Your task to perform on an android device: manage bookmarks in the chrome app Image 0: 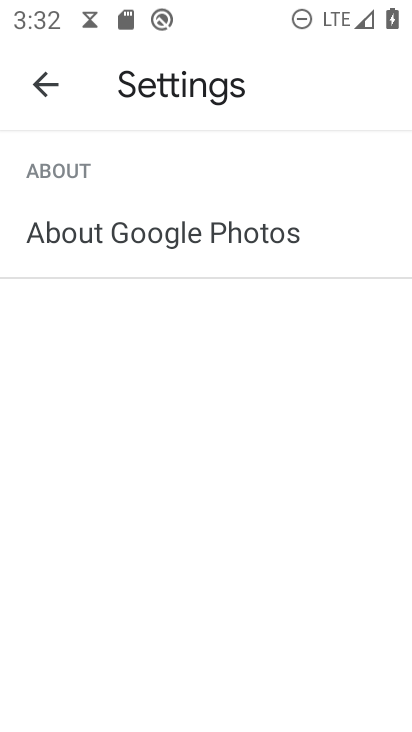
Step 0: press home button
Your task to perform on an android device: manage bookmarks in the chrome app Image 1: 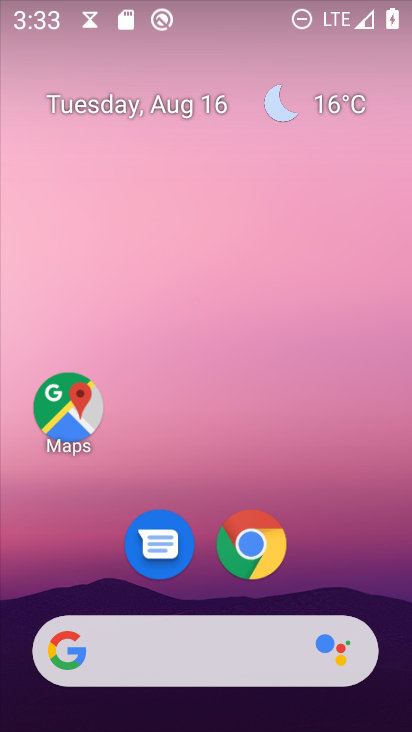
Step 1: click (251, 545)
Your task to perform on an android device: manage bookmarks in the chrome app Image 2: 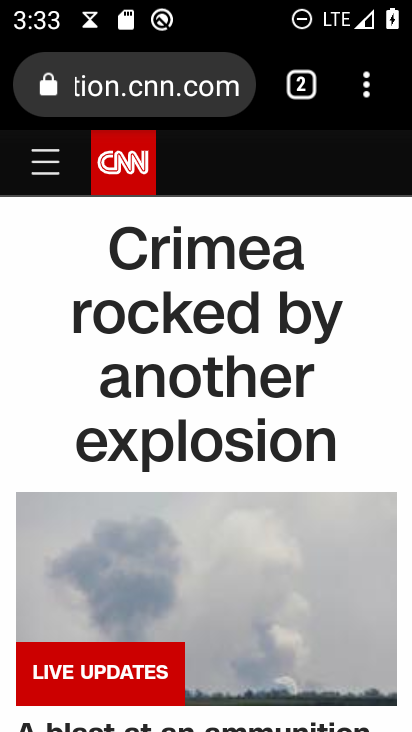
Step 2: click (372, 84)
Your task to perform on an android device: manage bookmarks in the chrome app Image 3: 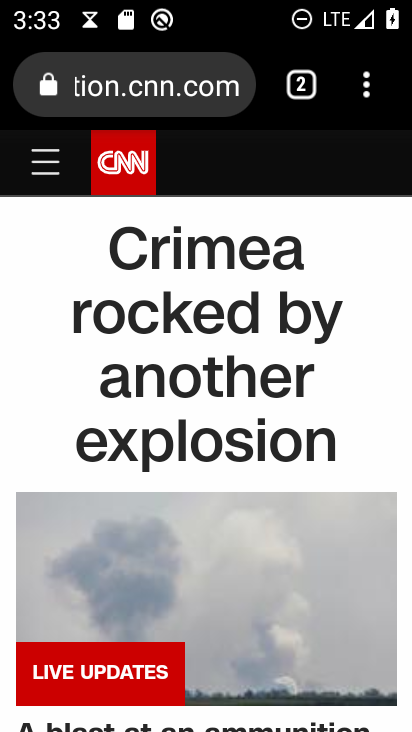
Step 3: drag from (372, 84) to (156, 322)
Your task to perform on an android device: manage bookmarks in the chrome app Image 4: 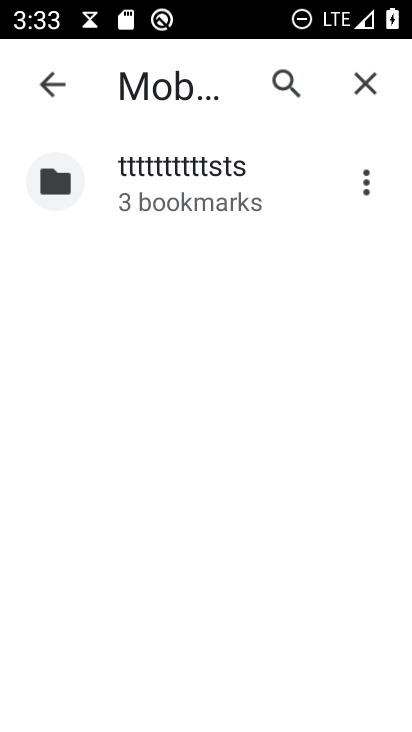
Step 4: click (365, 168)
Your task to perform on an android device: manage bookmarks in the chrome app Image 5: 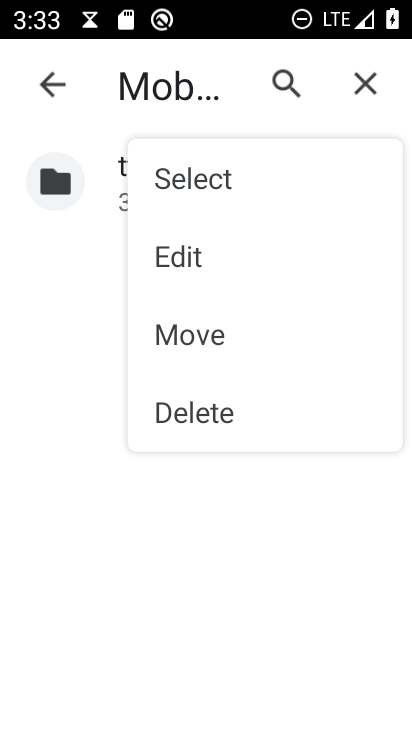
Step 5: click (184, 339)
Your task to perform on an android device: manage bookmarks in the chrome app Image 6: 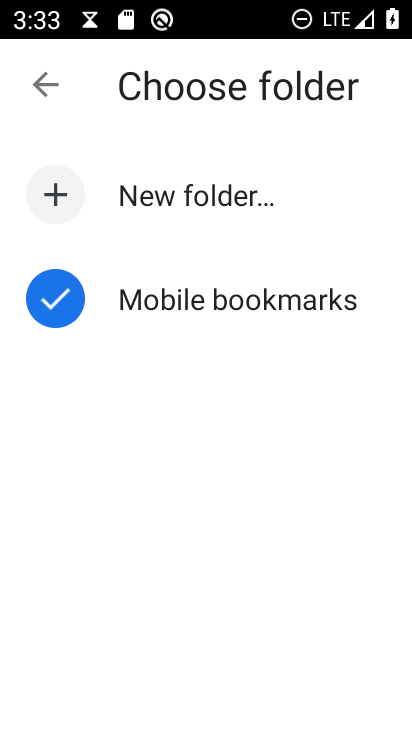
Step 6: click (220, 298)
Your task to perform on an android device: manage bookmarks in the chrome app Image 7: 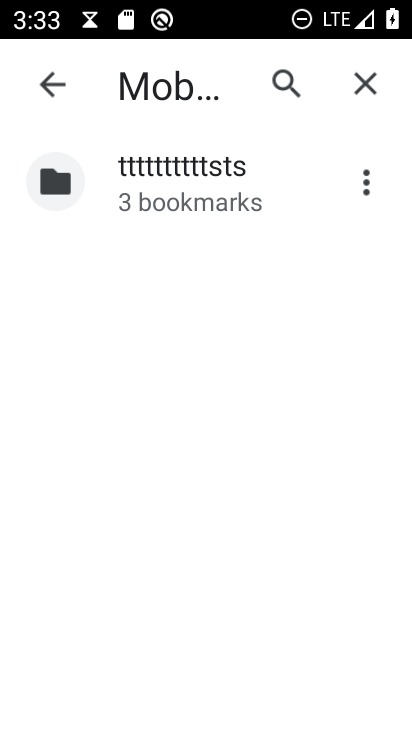
Step 7: task complete